Your task to perform on an android device: Search for vegetarian restaurants on Maps Image 0: 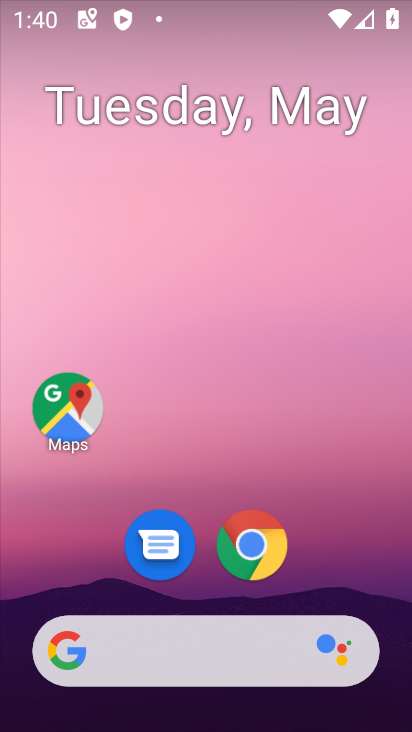
Step 0: click (68, 410)
Your task to perform on an android device: Search for vegetarian restaurants on Maps Image 1: 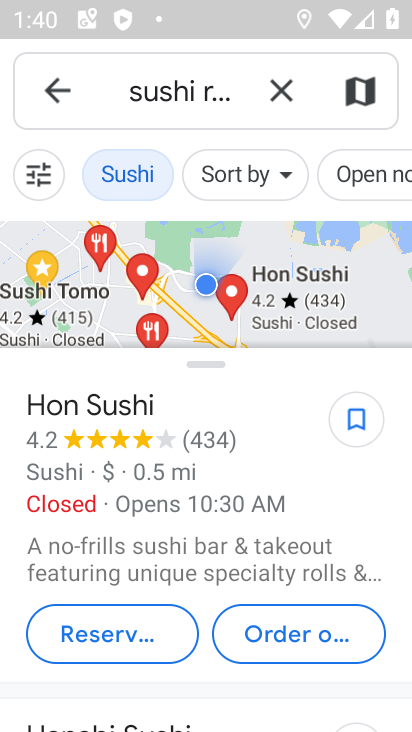
Step 1: click (280, 88)
Your task to perform on an android device: Search for vegetarian restaurants on Maps Image 2: 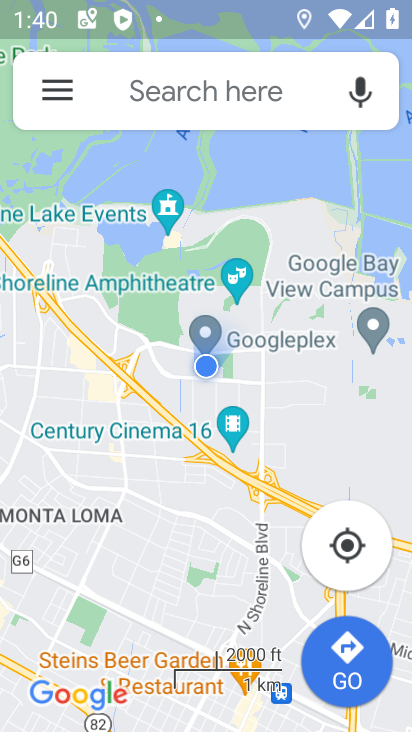
Step 2: click (151, 90)
Your task to perform on an android device: Search for vegetarian restaurants on Maps Image 3: 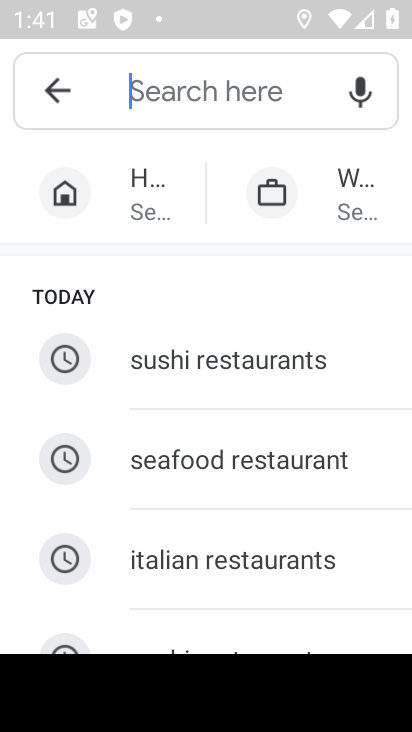
Step 3: type "vegetarian restaurants"
Your task to perform on an android device: Search for vegetarian restaurants on Maps Image 4: 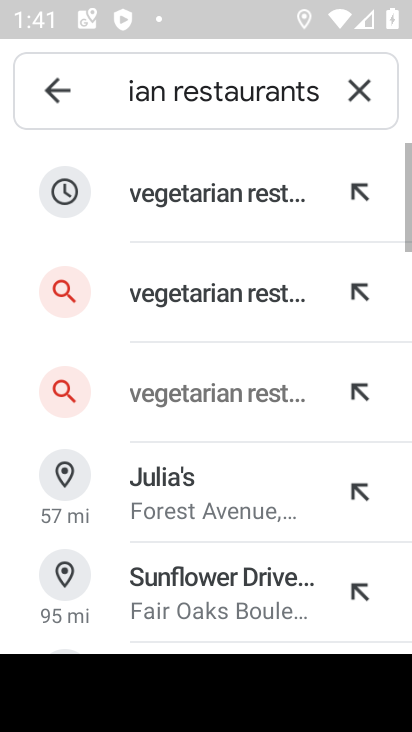
Step 4: click (167, 190)
Your task to perform on an android device: Search for vegetarian restaurants on Maps Image 5: 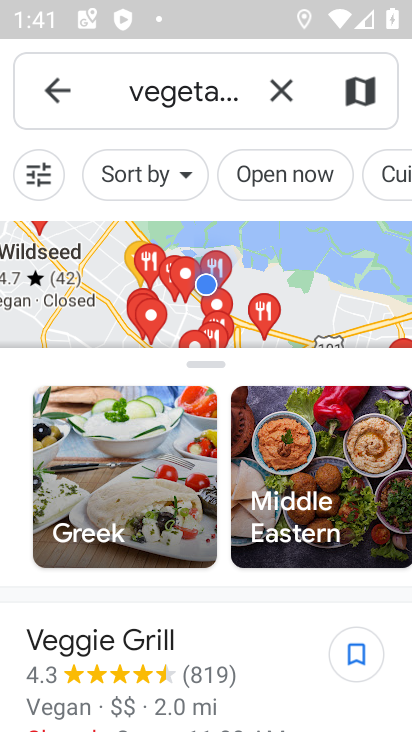
Step 5: task complete